Your task to perform on an android device: check the backup settings in the google photos Image 0: 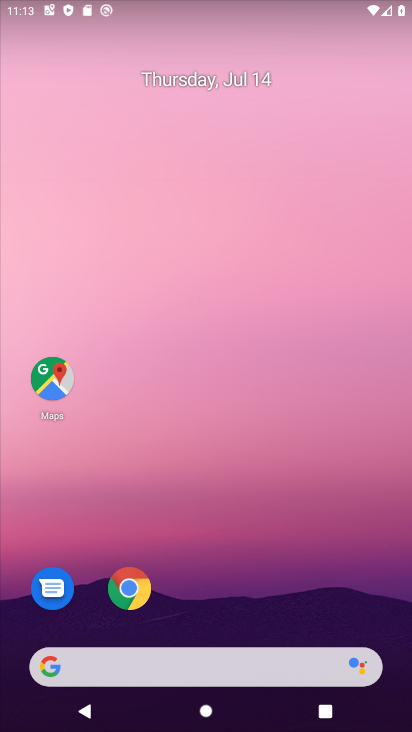
Step 0: drag from (397, 665) to (351, 307)
Your task to perform on an android device: check the backup settings in the google photos Image 1: 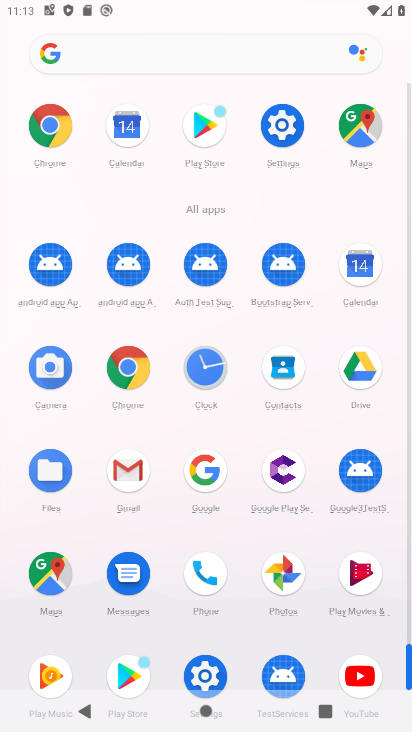
Step 1: click (281, 572)
Your task to perform on an android device: check the backup settings in the google photos Image 2: 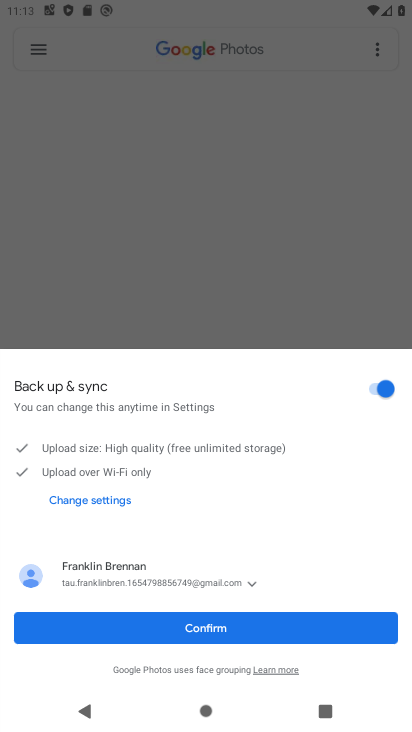
Step 2: click (190, 630)
Your task to perform on an android device: check the backup settings in the google photos Image 3: 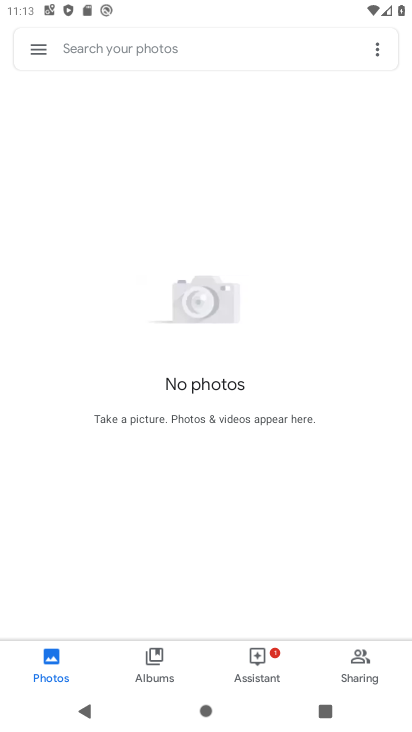
Step 3: click (38, 45)
Your task to perform on an android device: check the backup settings in the google photos Image 4: 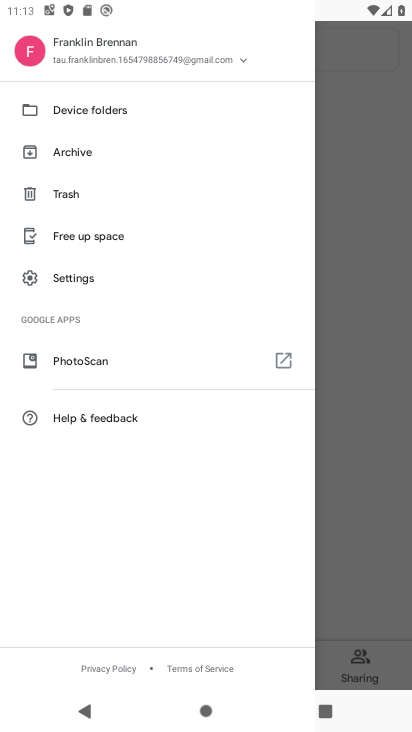
Step 4: click (71, 278)
Your task to perform on an android device: check the backup settings in the google photos Image 5: 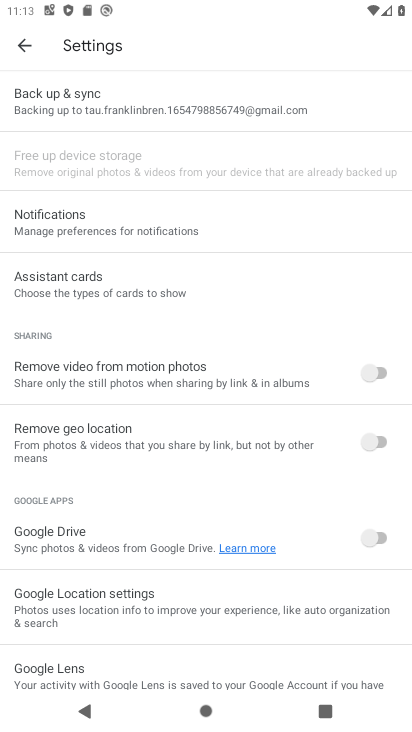
Step 5: click (82, 90)
Your task to perform on an android device: check the backup settings in the google photos Image 6: 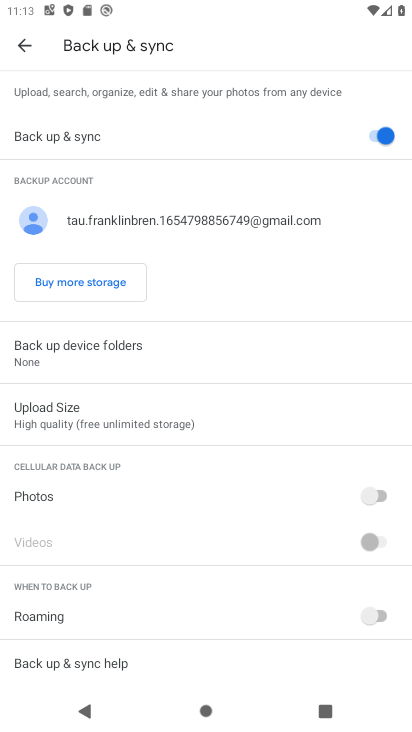
Step 6: task complete